Your task to perform on an android device: Open CNN.com Image 0: 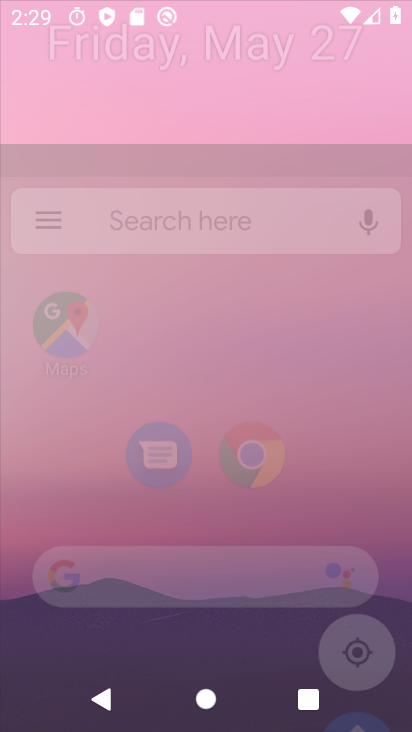
Step 0: drag from (176, 492) to (169, 176)
Your task to perform on an android device: Open CNN.com Image 1: 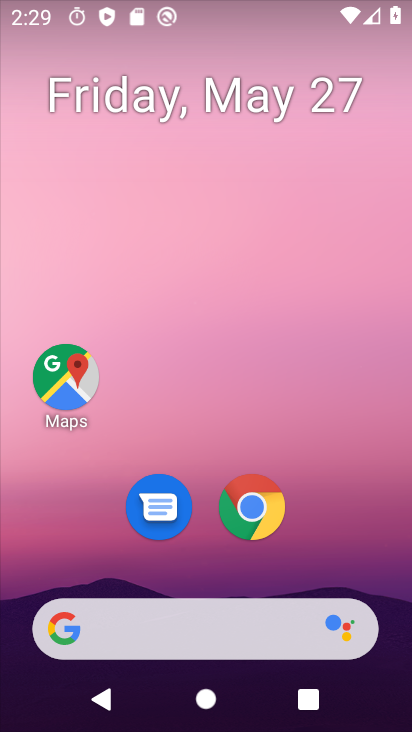
Step 1: drag from (192, 608) to (208, 107)
Your task to perform on an android device: Open CNN.com Image 2: 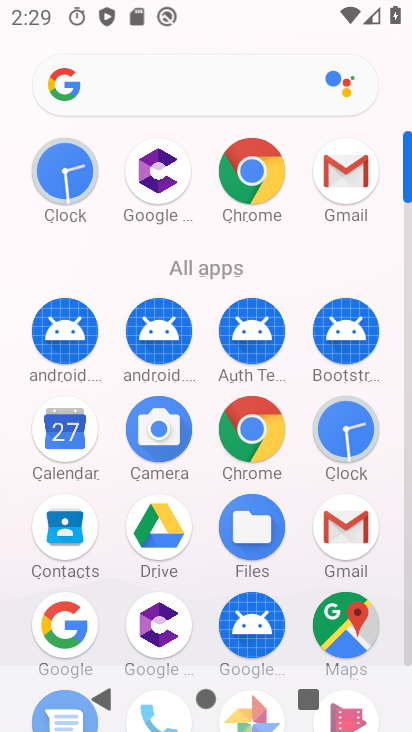
Step 2: click (58, 631)
Your task to perform on an android device: Open CNN.com Image 3: 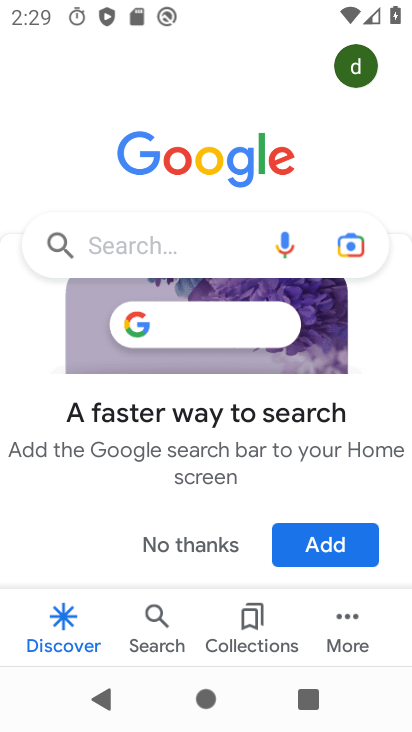
Step 3: click (183, 246)
Your task to perform on an android device: Open CNN.com Image 4: 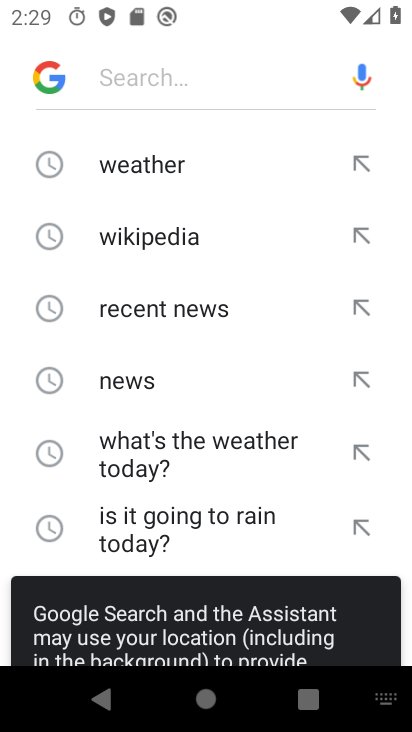
Step 4: drag from (167, 586) to (162, 103)
Your task to perform on an android device: Open CNN.com Image 5: 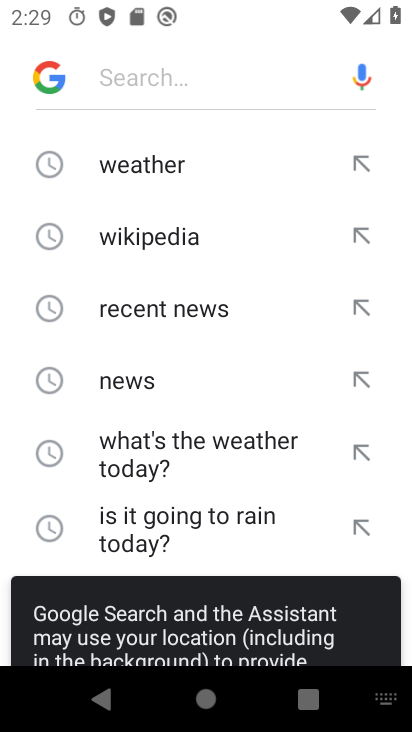
Step 5: drag from (178, 503) to (157, 169)
Your task to perform on an android device: Open CNN.com Image 6: 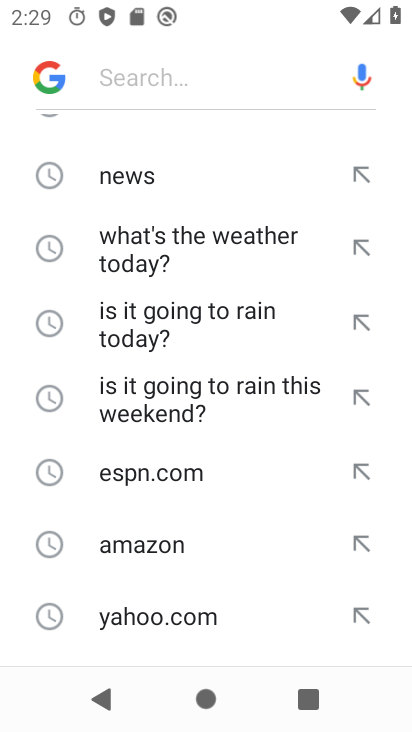
Step 6: drag from (142, 635) to (142, 164)
Your task to perform on an android device: Open CNN.com Image 7: 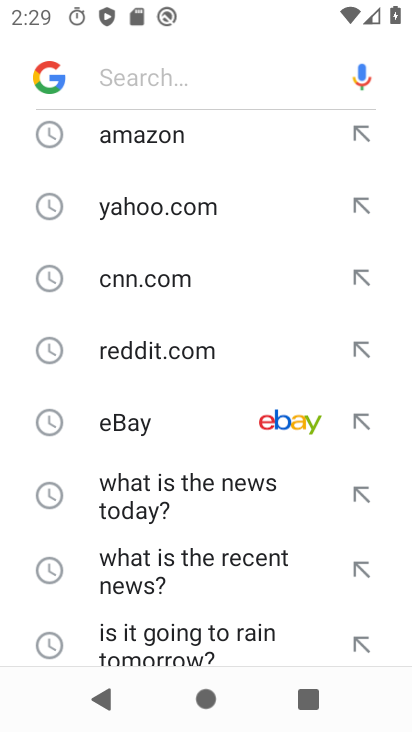
Step 7: drag from (180, 607) to (173, 187)
Your task to perform on an android device: Open CNN.com Image 8: 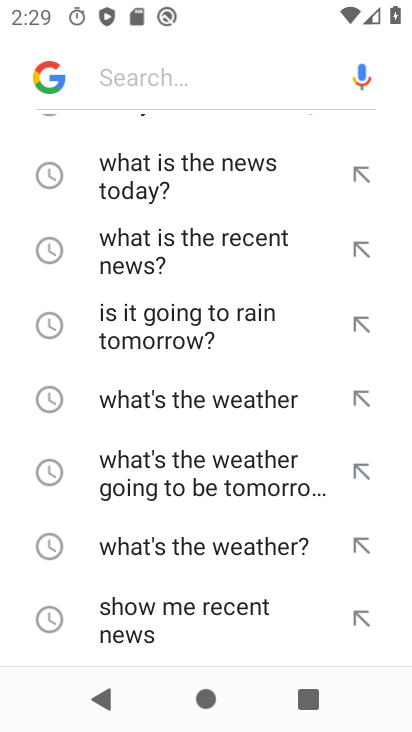
Step 8: drag from (160, 229) to (233, 581)
Your task to perform on an android device: Open CNN.com Image 9: 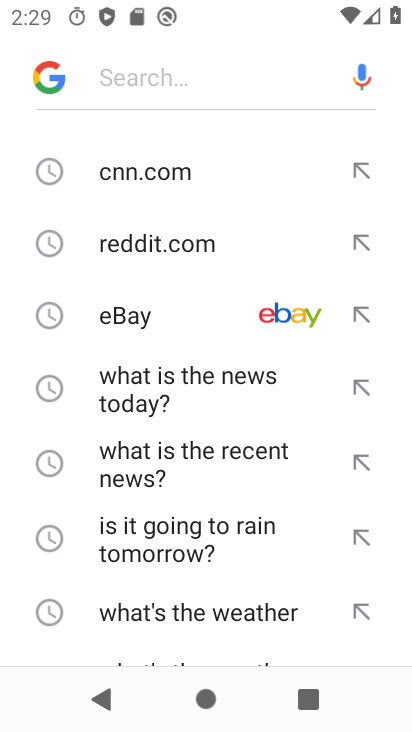
Step 9: click (106, 164)
Your task to perform on an android device: Open CNN.com Image 10: 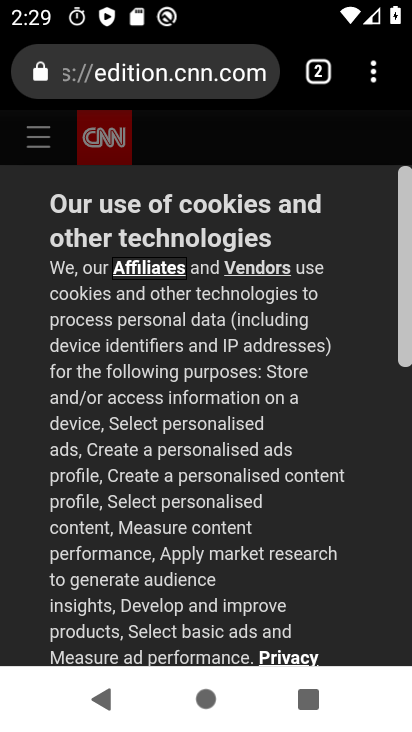
Step 10: task complete